Your task to perform on an android device: create a new album in the google photos Image 0: 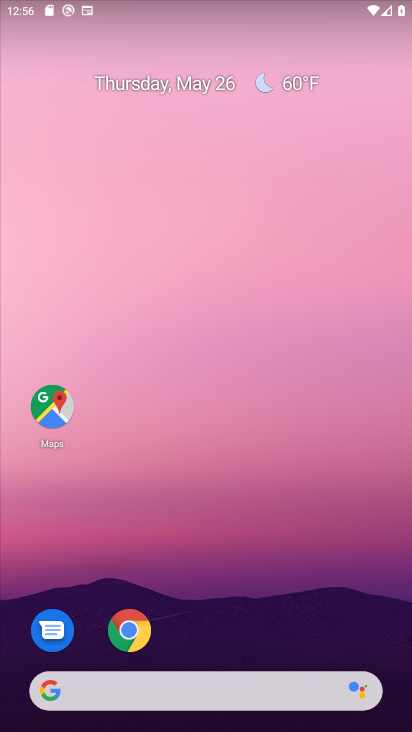
Step 0: drag from (333, 495) to (303, 3)
Your task to perform on an android device: create a new album in the google photos Image 1: 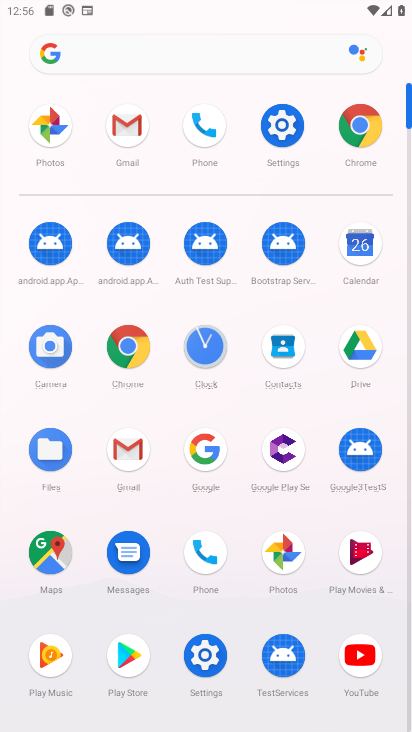
Step 1: click (37, 128)
Your task to perform on an android device: create a new album in the google photos Image 2: 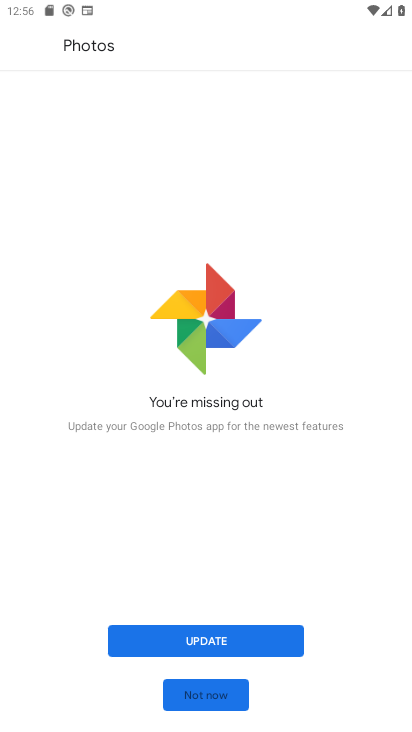
Step 2: click (227, 649)
Your task to perform on an android device: create a new album in the google photos Image 3: 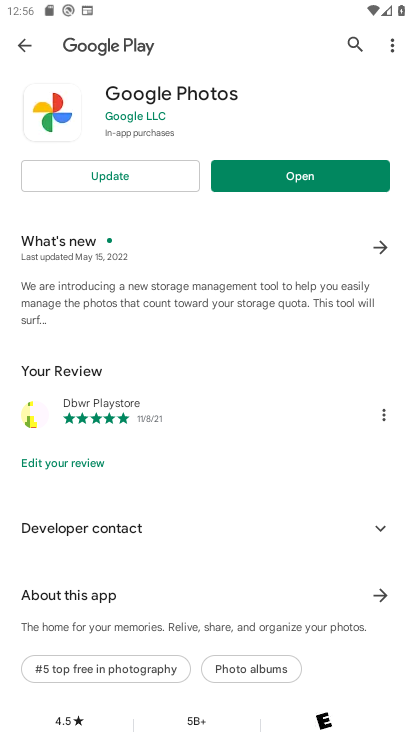
Step 3: click (72, 170)
Your task to perform on an android device: create a new album in the google photos Image 4: 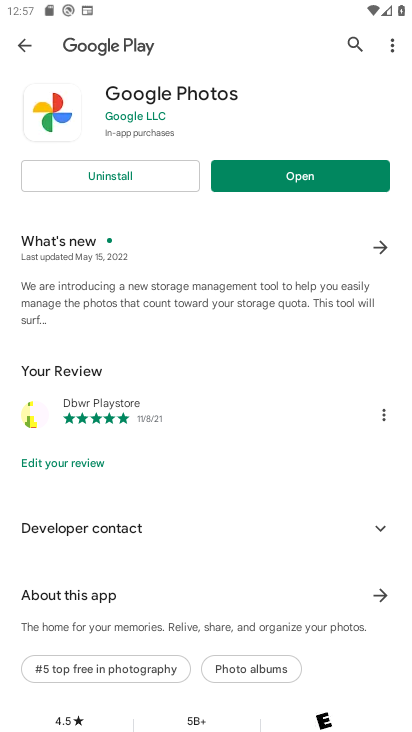
Step 4: click (272, 170)
Your task to perform on an android device: create a new album in the google photos Image 5: 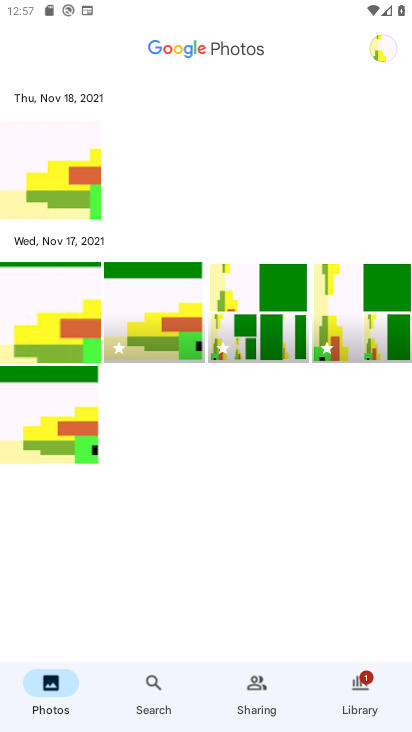
Step 5: task complete